Your task to perform on an android device: check storage Image 0: 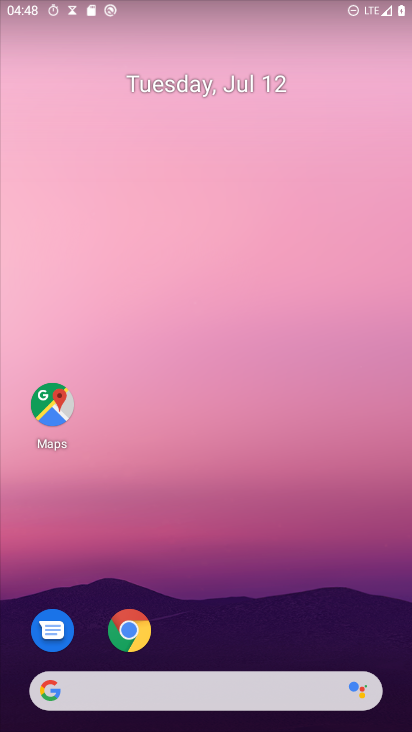
Step 0: drag from (279, 692) to (265, 3)
Your task to perform on an android device: check storage Image 1: 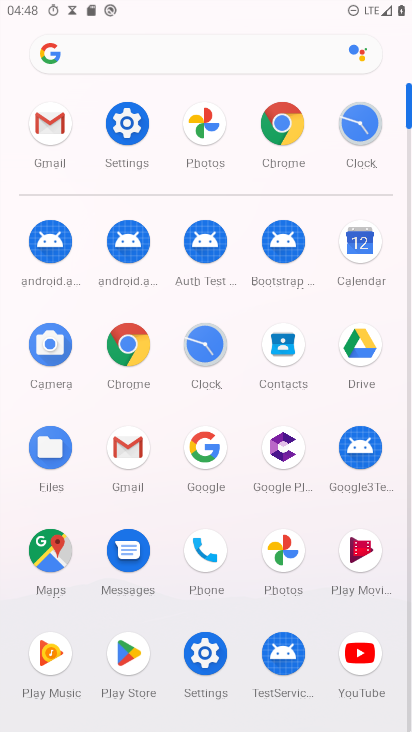
Step 1: click (138, 122)
Your task to perform on an android device: check storage Image 2: 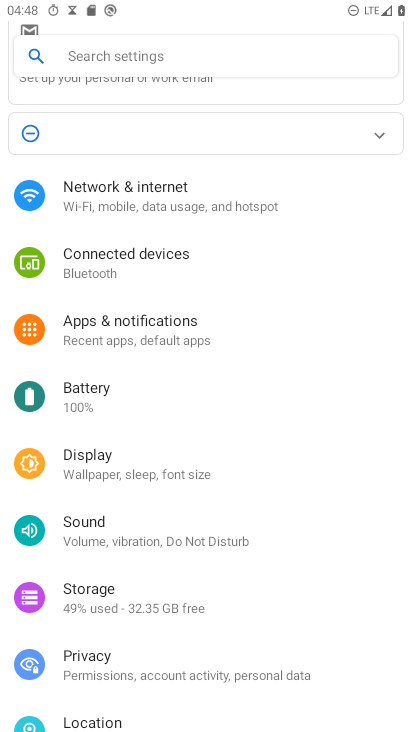
Step 2: click (155, 604)
Your task to perform on an android device: check storage Image 3: 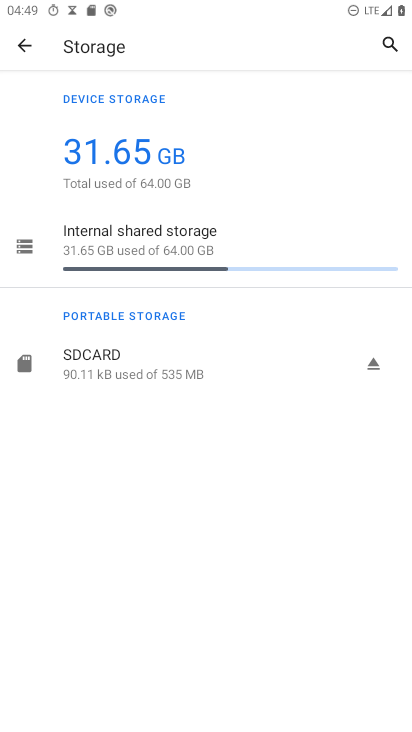
Step 3: task complete